Your task to perform on an android device: open chrome and create a bookmark for the current page Image 0: 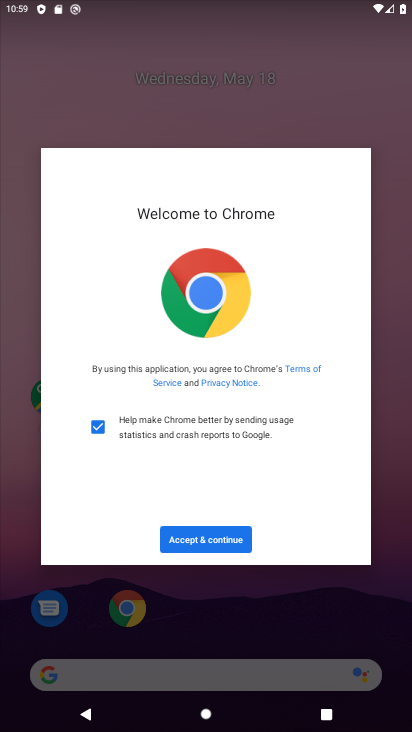
Step 0: click (225, 544)
Your task to perform on an android device: open chrome and create a bookmark for the current page Image 1: 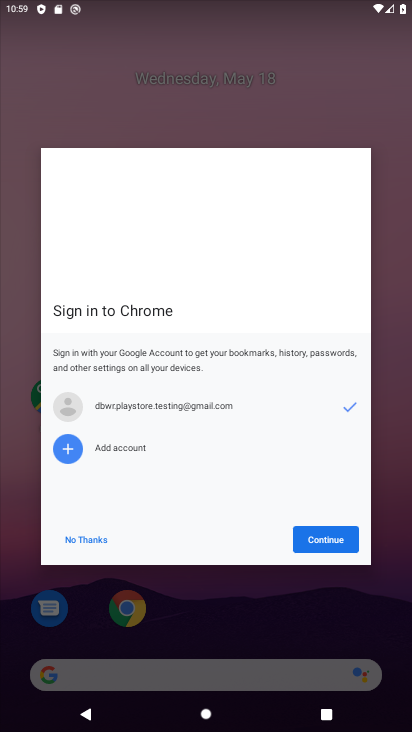
Step 1: click (333, 536)
Your task to perform on an android device: open chrome and create a bookmark for the current page Image 2: 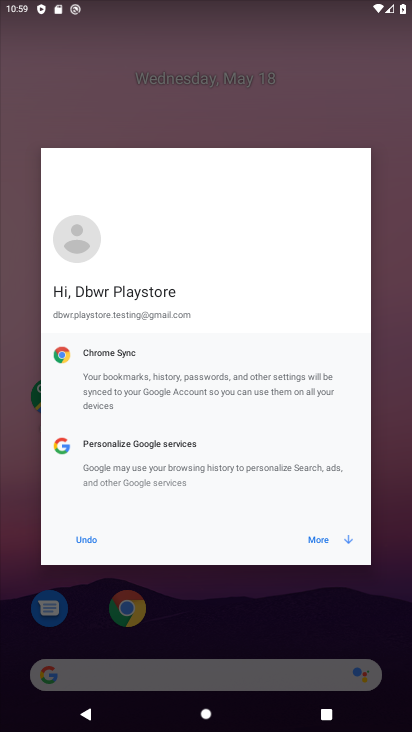
Step 2: click (333, 536)
Your task to perform on an android device: open chrome and create a bookmark for the current page Image 3: 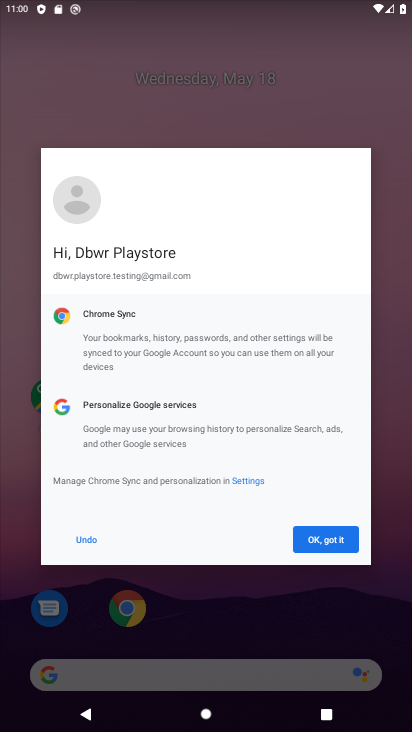
Step 3: click (317, 540)
Your task to perform on an android device: open chrome and create a bookmark for the current page Image 4: 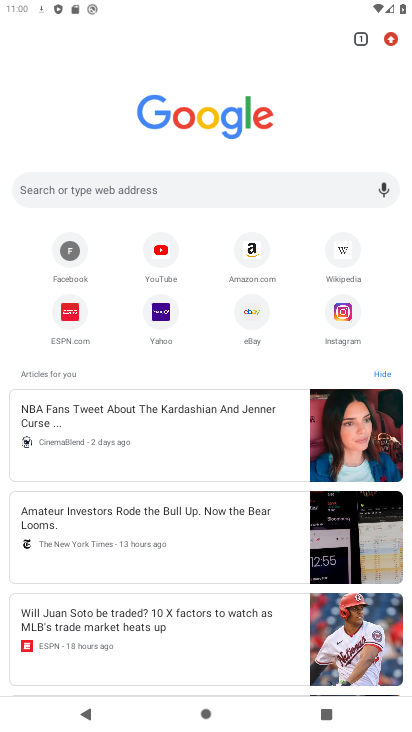
Step 4: click (391, 38)
Your task to perform on an android device: open chrome and create a bookmark for the current page Image 5: 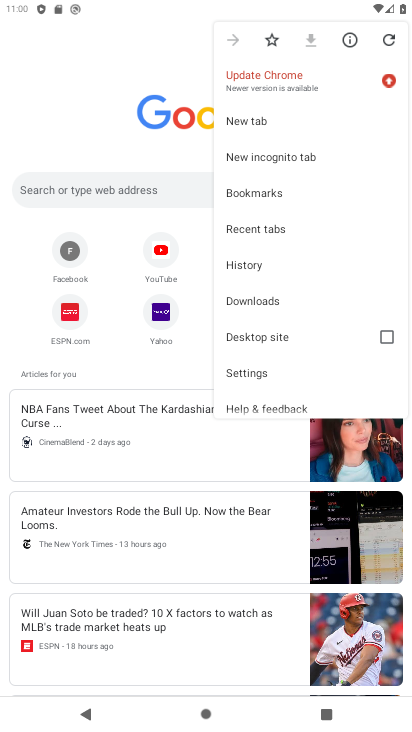
Step 5: click (270, 40)
Your task to perform on an android device: open chrome and create a bookmark for the current page Image 6: 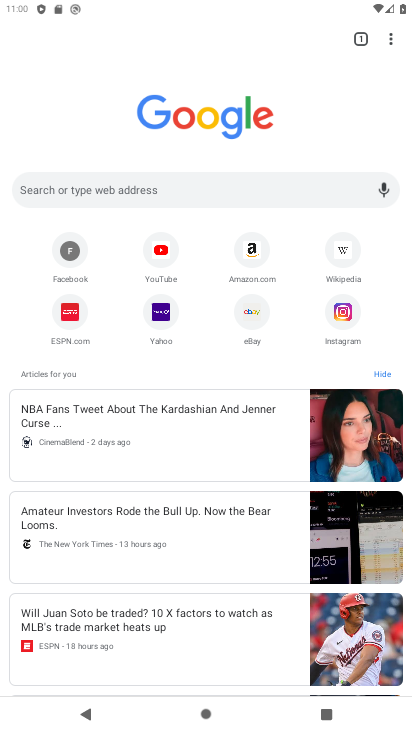
Step 6: task complete